Your task to perform on an android device: Open ESPN.com Image 0: 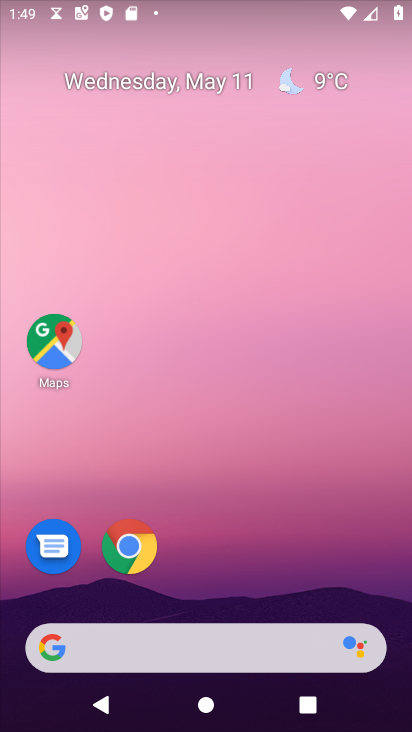
Step 0: drag from (312, 605) to (404, 54)
Your task to perform on an android device: Open ESPN.com Image 1: 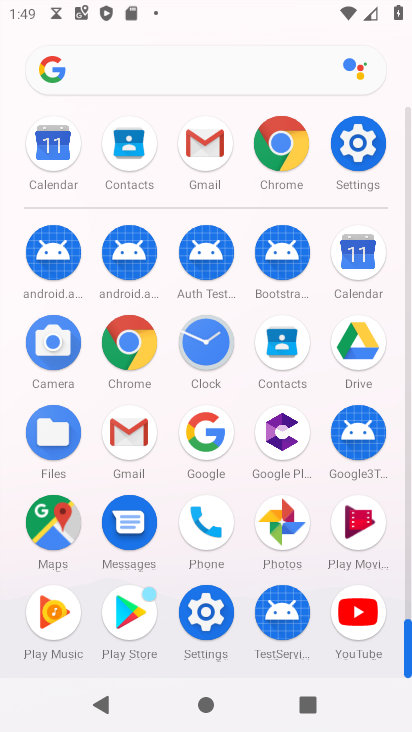
Step 1: click (122, 344)
Your task to perform on an android device: Open ESPN.com Image 2: 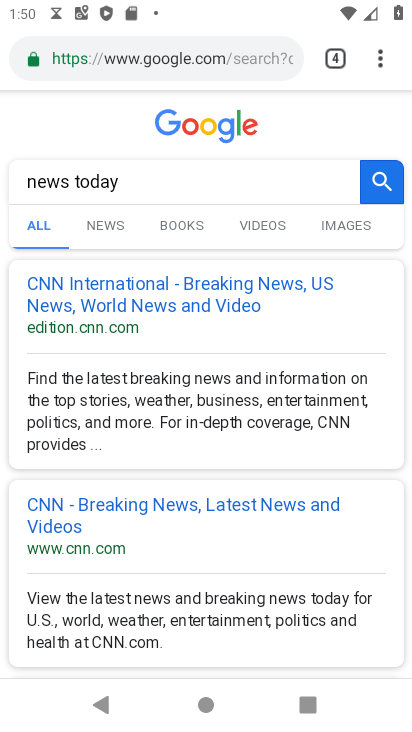
Step 2: click (148, 182)
Your task to perform on an android device: Open ESPN.com Image 3: 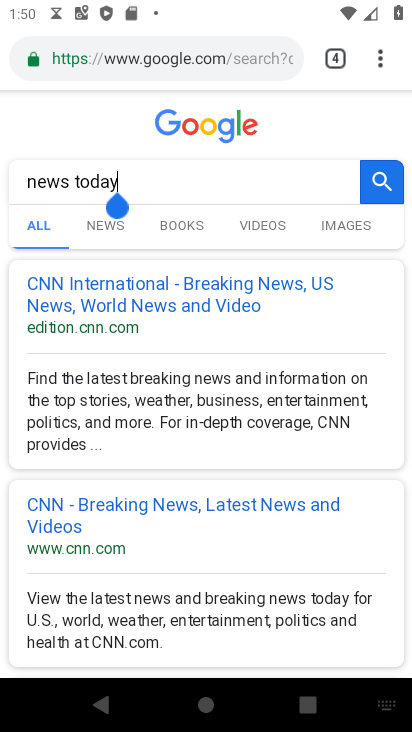
Step 3: click (204, 51)
Your task to perform on an android device: Open ESPN.com Image 4: 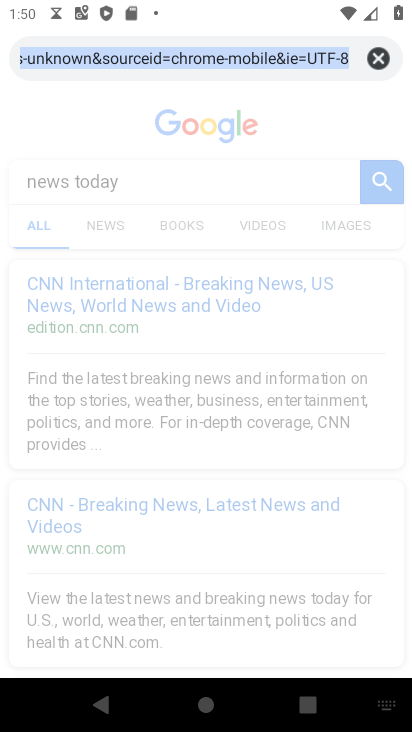
Step 4: click (370, 60)
Your task to perform on an android device: Open ESPN.com Image 5: 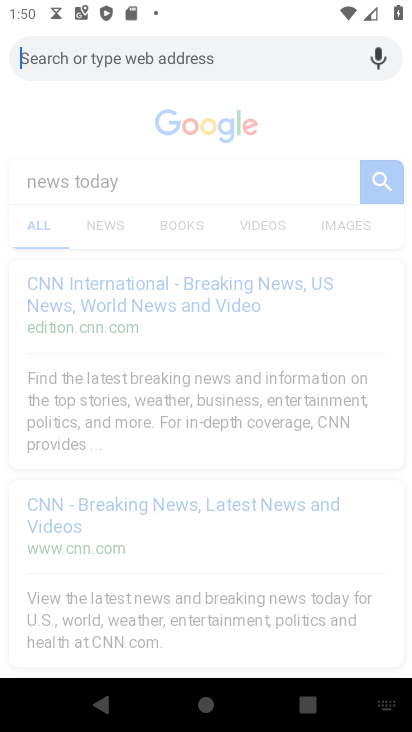
Step 5: type "espn.com"
Your task to perform on an android device: Open ESPN.com Image 6: 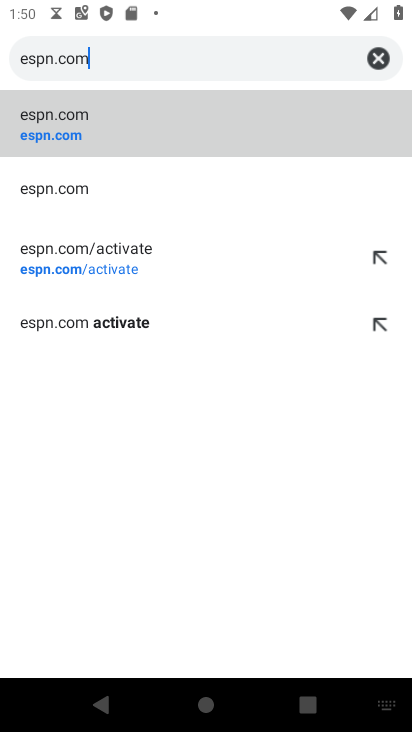
Step 6: click (108, 138)
Your task to perform on an android device: Open ESPN.com Image 7: 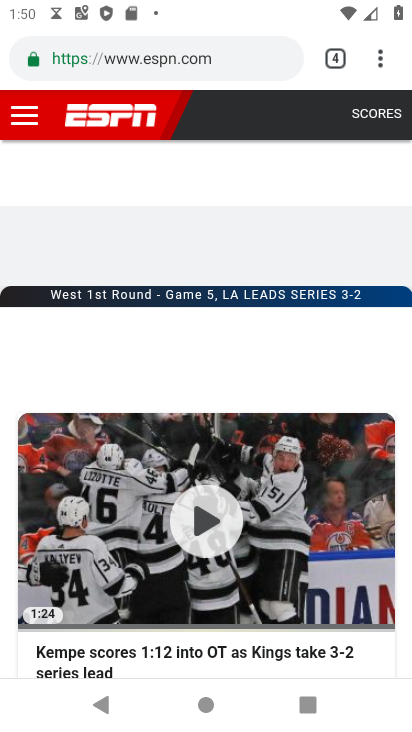
Step 7: task complete